Your task to perform on an android device: turn on notifications settings in the gmail app Image 0: 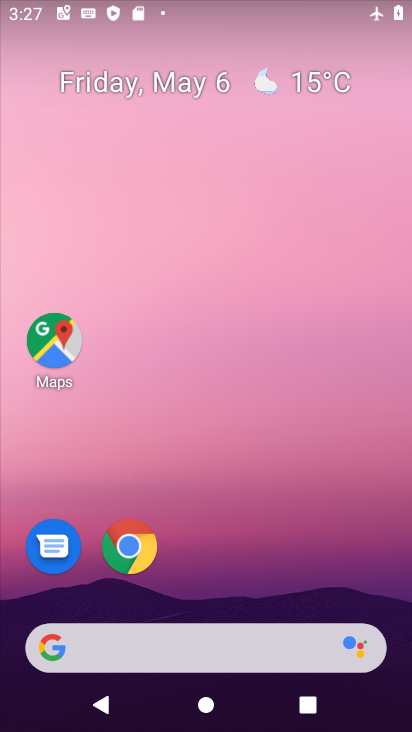
Step 0: drag from (225, 583) to (270, 102)
Your task to perform on an android device: turn on notifications settings in the gmail app Image 1: 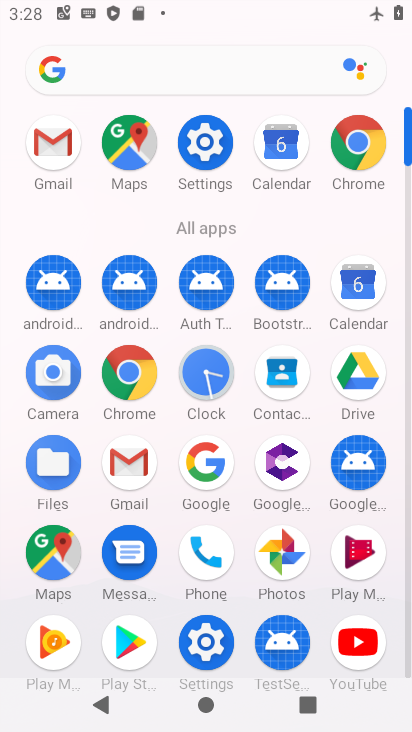
Step 1: click (56, 152)
Your task to perform on an android device: turn on notifications settings in the gmail app Image 2: 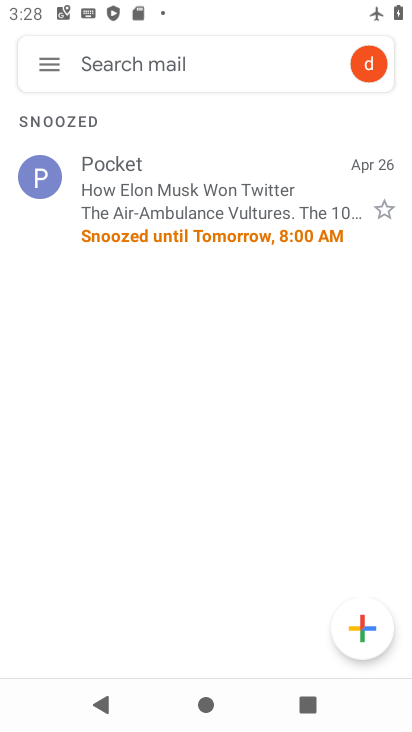
Step 2: click (56, 67)
Your task to perform on an android device: turn on notifications settings in the gmail app Image 3: 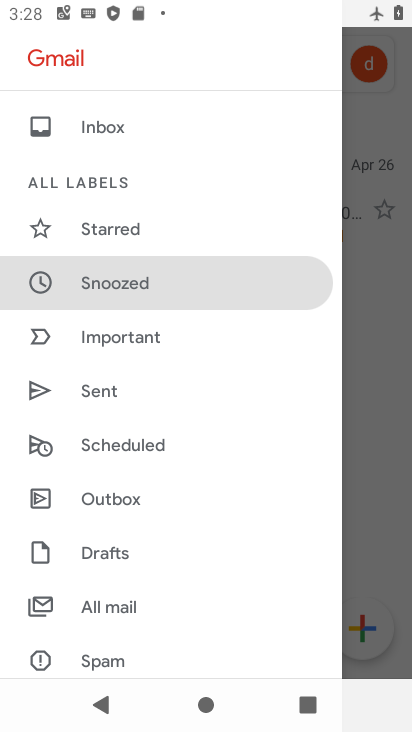
Step 3: drag from (251, 594) to (241, 241)
Your task to perform on an android device: turn on notifications settings in the gmail app Image 4: 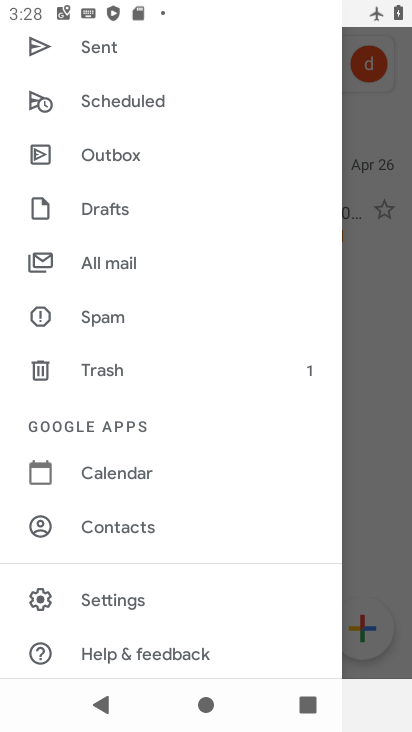
Step 4: click (256, 584)
Your task to perform on an android device: turn on notifications settings in the gmail app Image 5: 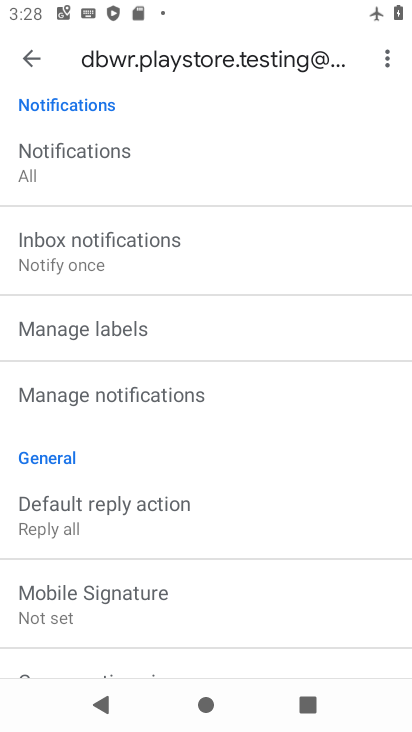
Step 5: drag from (260, 589) to (279, 241)
Your task to perform on an android device: turn on notifications settings in the gmail app Image 6: 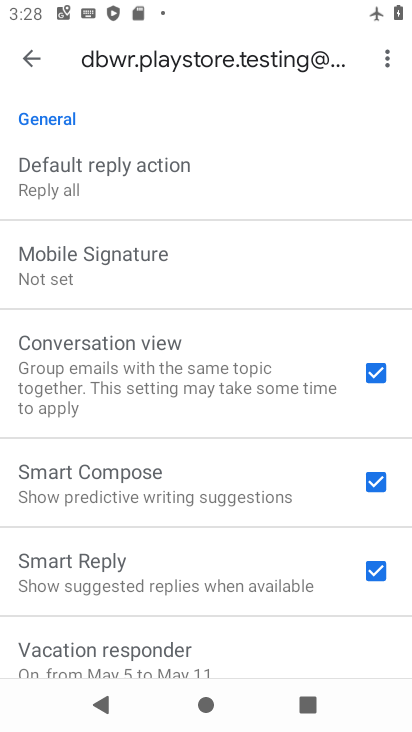
Step 6: drag from (266, 214) to (243, 580)
Your task to perform on an android device: turn on notifications settings in the gmail app Image 7: 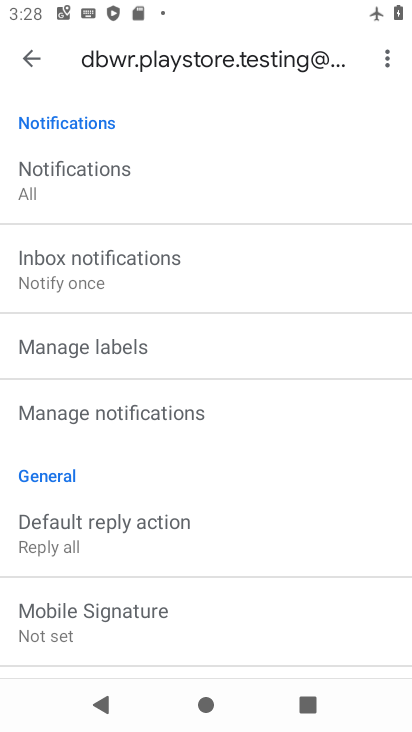
Step 7: click (223, 431)
Your task to perform on an android device: turn on notifications settings in the gmail app Image 8: 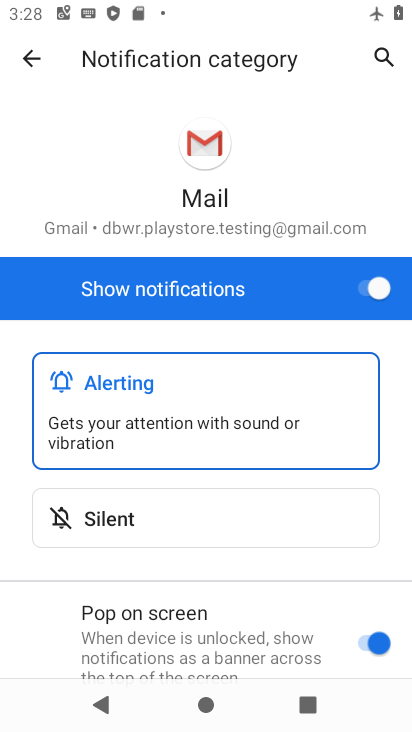
Step 8: task complete